Your task to perform on an android device: refresh tabs in the chrome app Image 0: 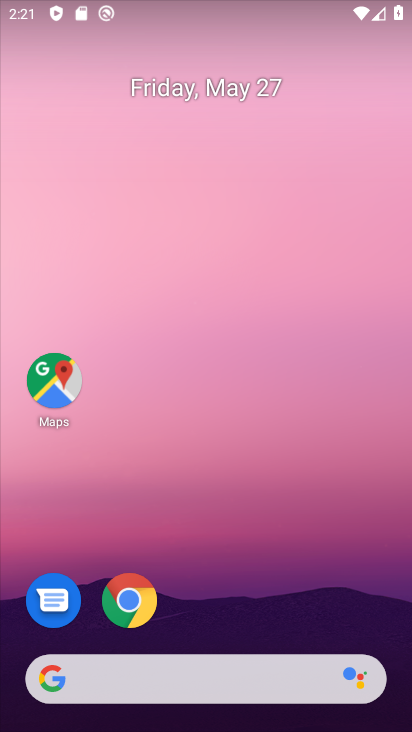
Step 0: click (128, 601)
Your task to perform on an android device: refresh tabs in the chrome app Image 1: 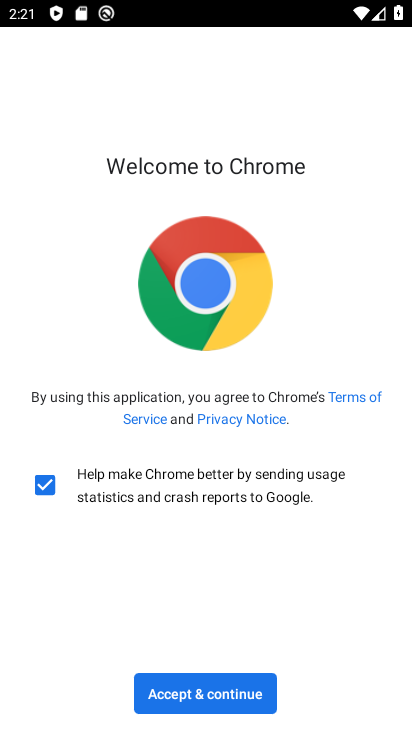
Step 1: click (211, 693)
Your task to perform on an android device: refresh tabs in the chrome app Image 2: 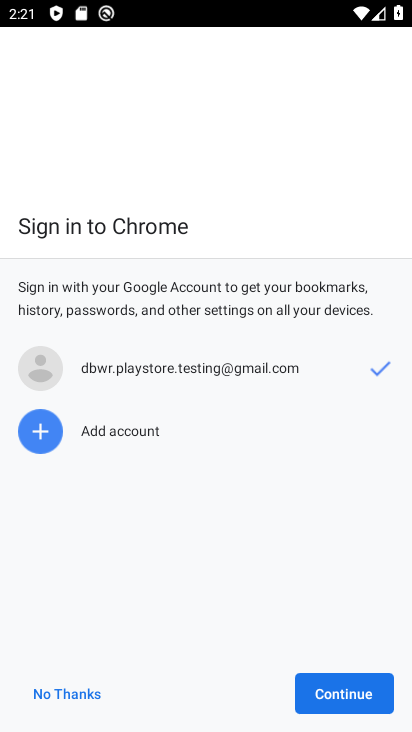
Step 2: click (357, 695)
Your task to perform on an android device: refresh tabs in the chrome app Image 3: 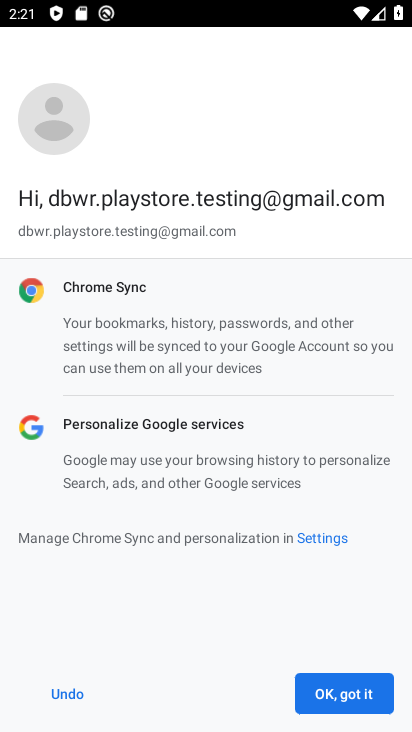
Step 3: click (357, 695)
Your task to perform on an android device: refresh tabs in the chrome app Image 4: 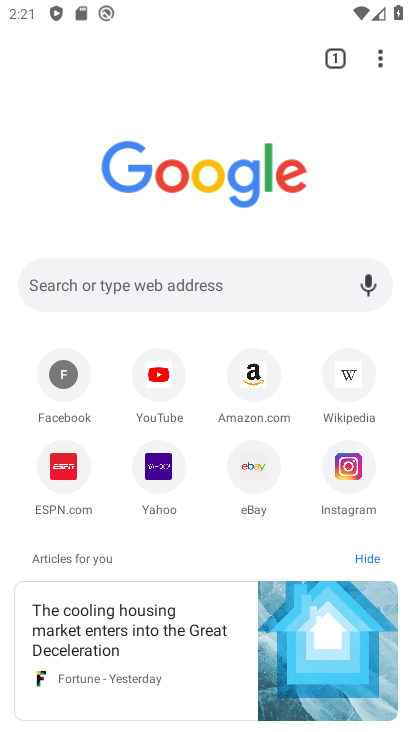
Step 4: click (379, 63)
Your task to perform on an android device: refresh tabs in the chrome app Image 5: 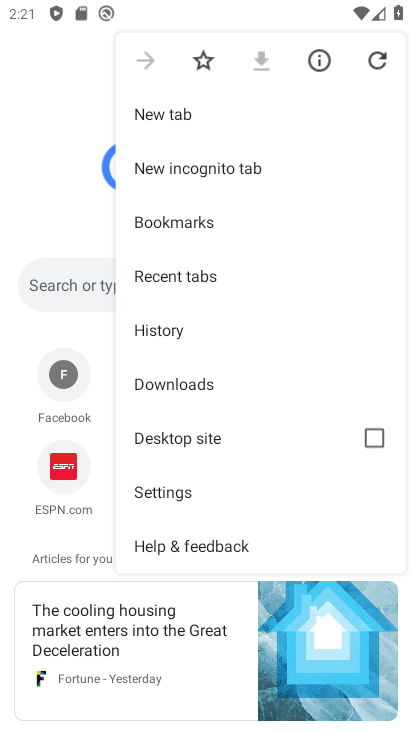
Step 5: click (374, 59)
Your task to perform on an android device: refresh tabs in the chrome app Image 6: 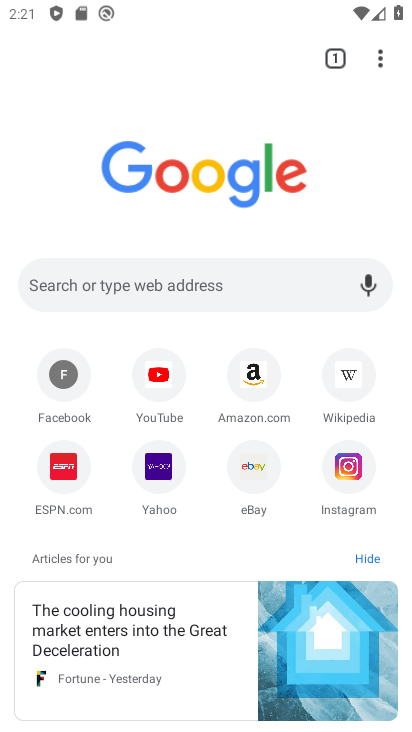
Step 6: task complete